Your task to perform on an android device: Show the shopping cart on bestbuy.com. Search for dell alienware on bestbuy.com, select the first entry, and add it to the cart. Image 0: 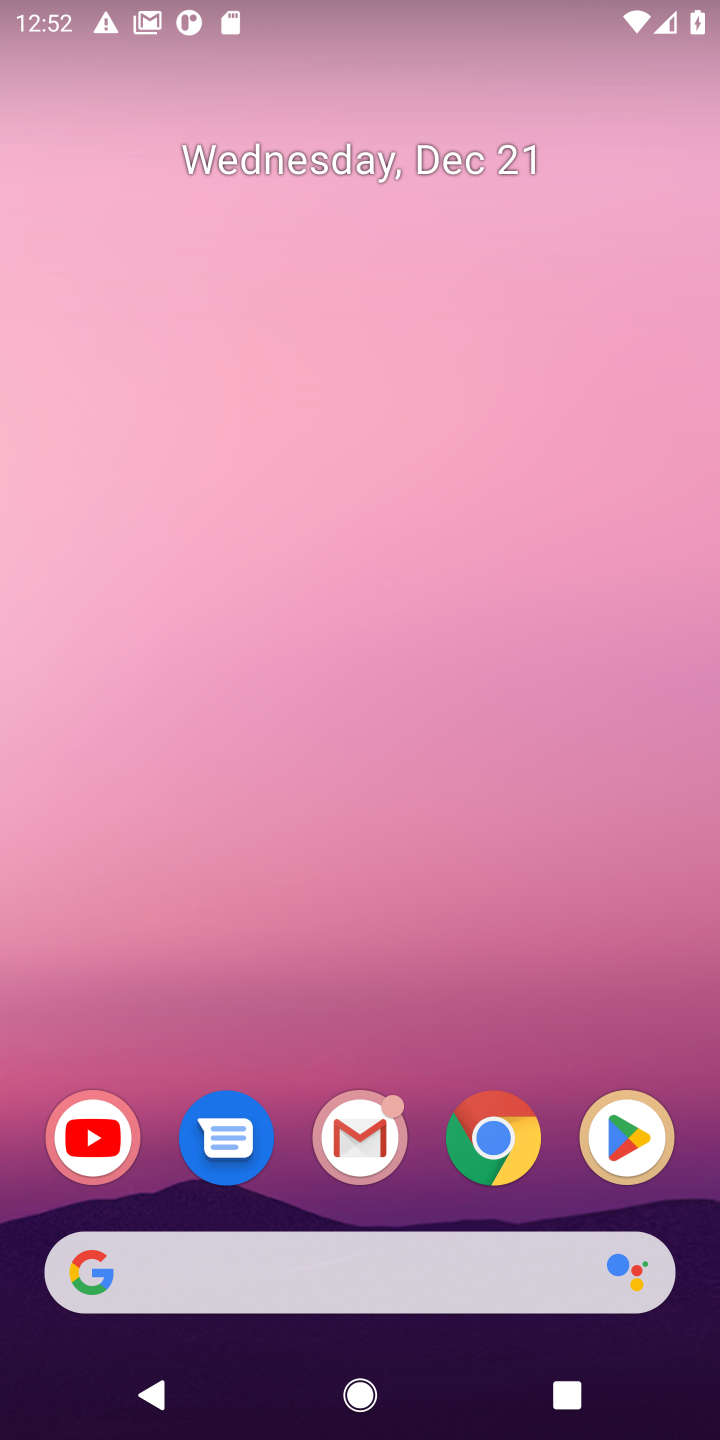
Step 0: click (496, 1122)
Your task to perform on an android device: Show the shopping cart on bestbuy.com. Search for dell alienware on bestbuy.com, select the first entry, and add it to the cart. Image 1: 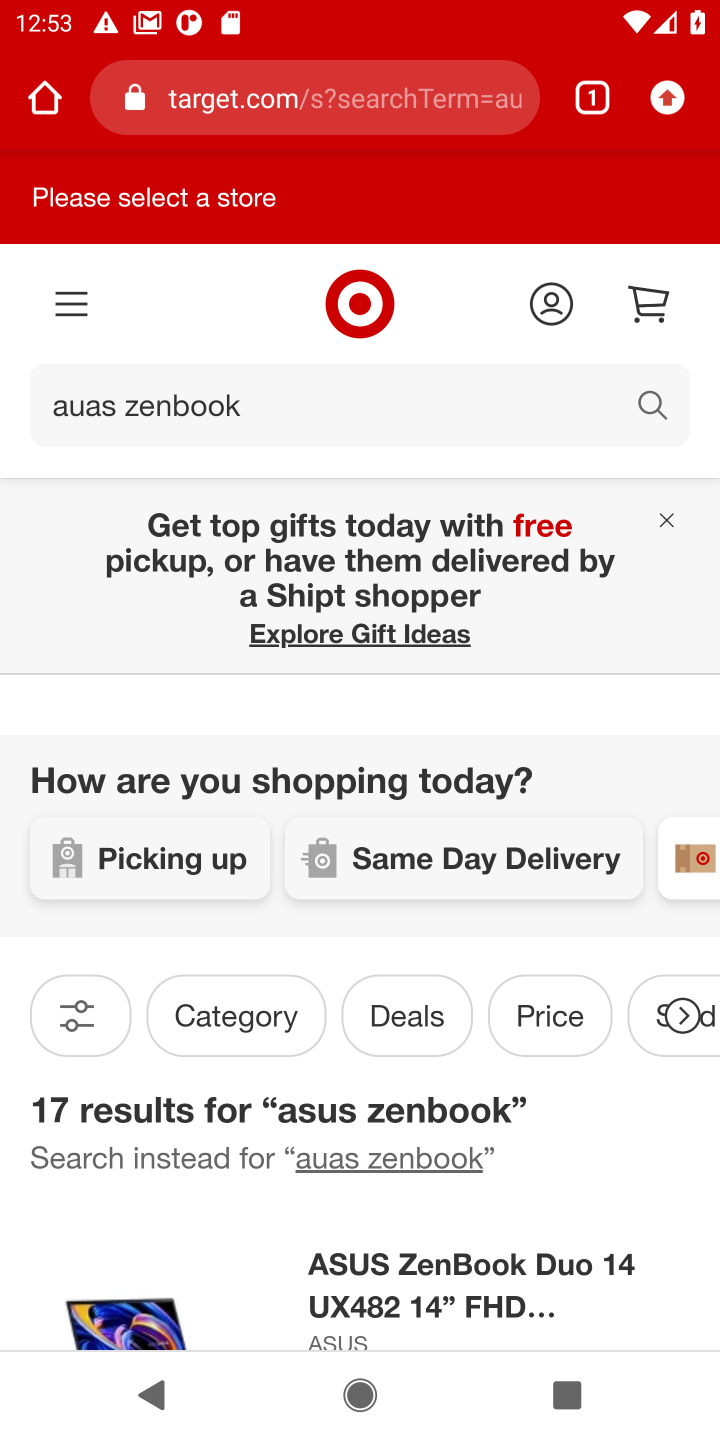
Step 1: click (349, 112)
Your task to perform on an android device: Show the shopping cart on bestbuy.com. Search for dell alienware on bestbuy.com, select the first entry, and add it to the cart. Image 2: 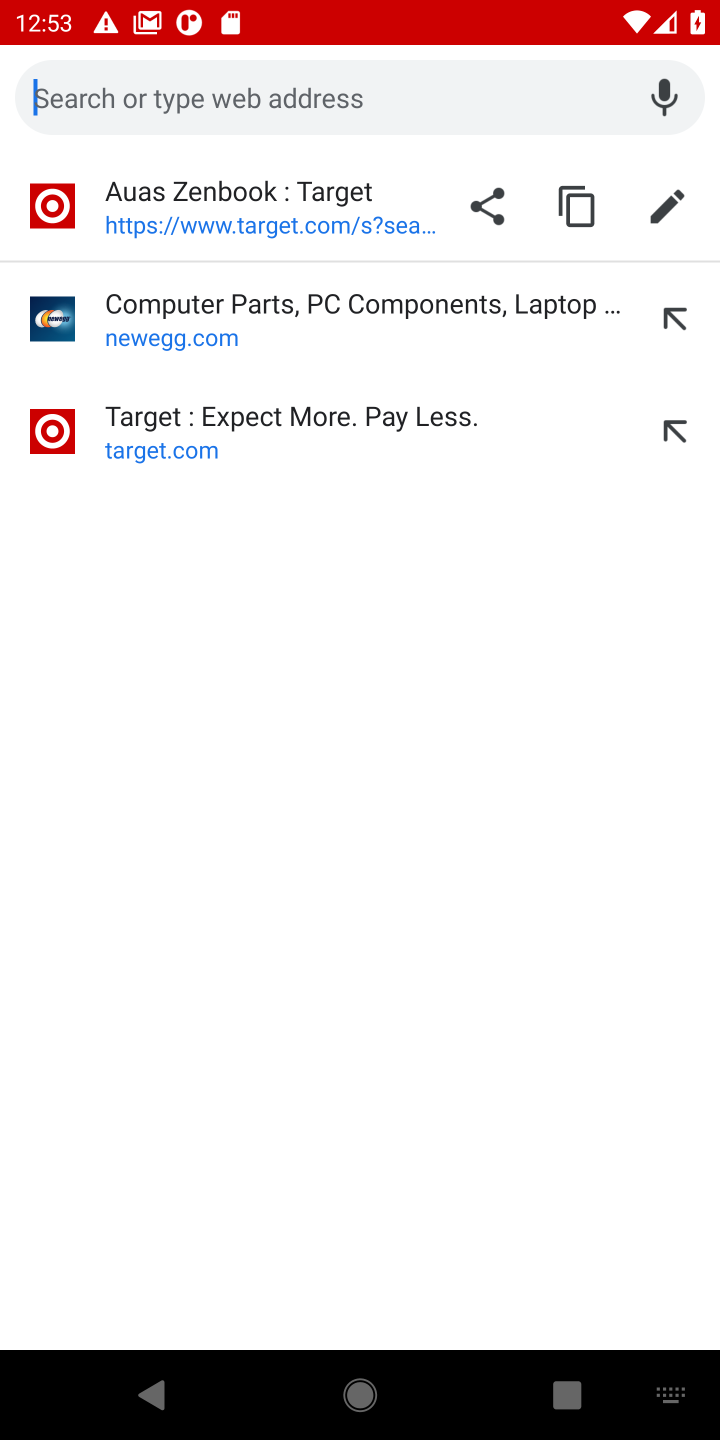
Step 2: type "bestbuy"
Your task to perform on an android device: Show the shopping cart on bestbuy.com. Search for dell alienware on bestbuy.com, select the first entry, and add it to the cart. Image 3: 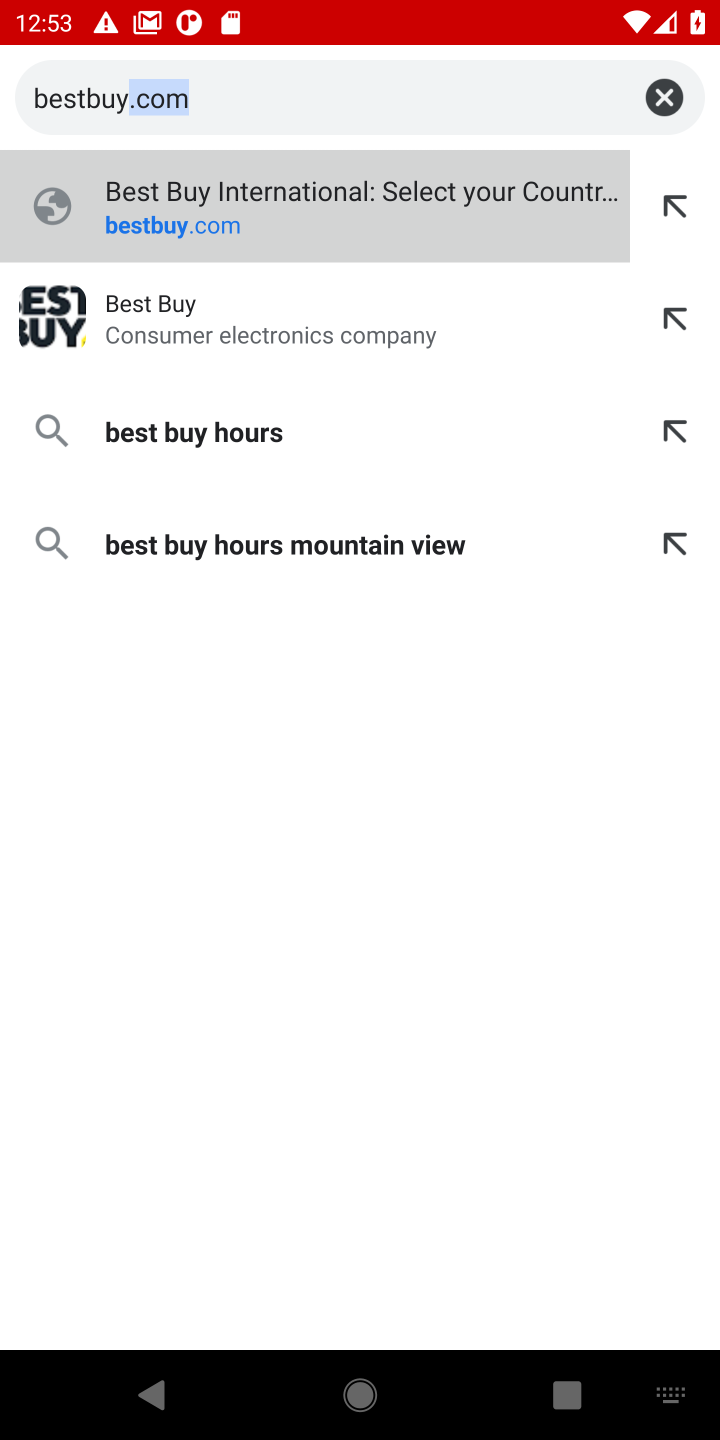
Step 3: click (174, 202)
Your task to perform on an android device: Show the shopping cart on bestbuy.com. Search for dell alienware on bestbuy.com, select the first entry, and add it to the cart. Image 4: 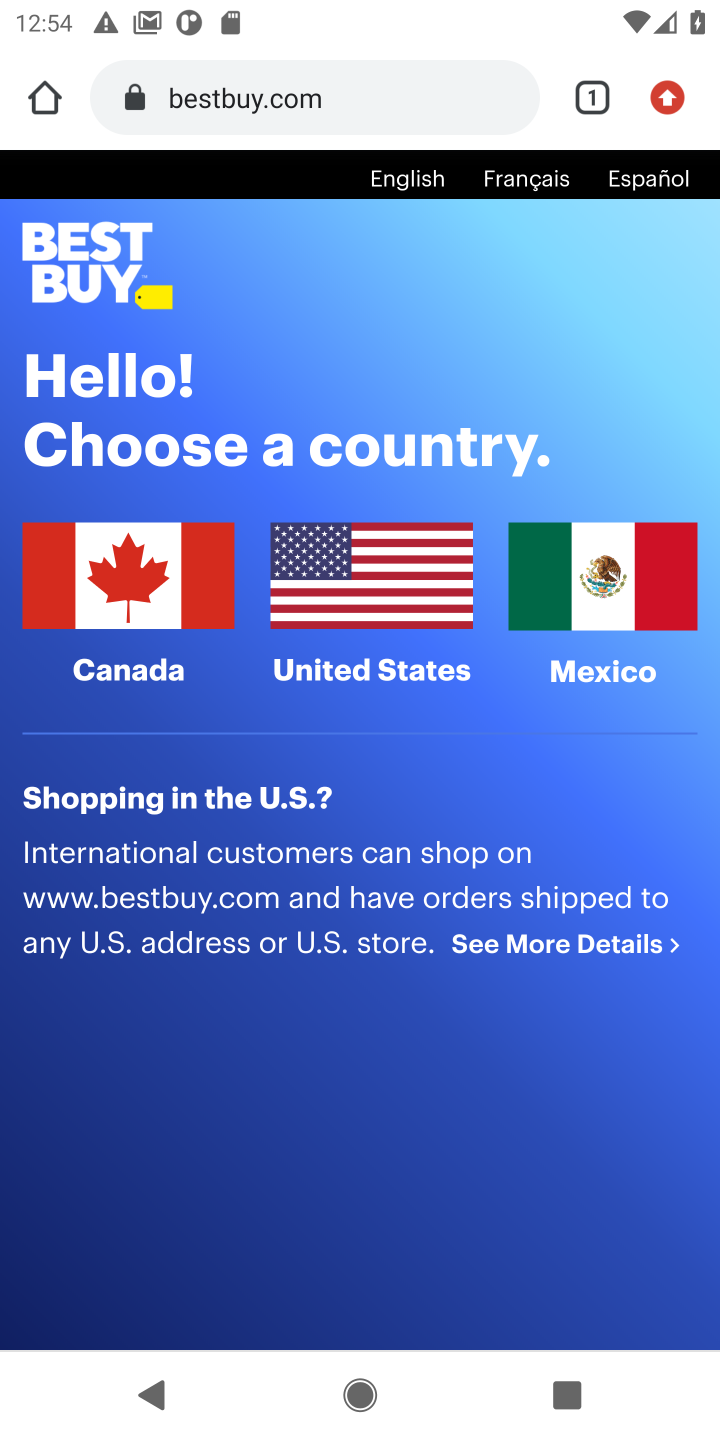
Step 4: click (159, 552)
Your task to perform on an android device: Show the shopping cart on bestbuy.com. Search for dell alienware on bestbuy.com, select the first entry, and add it to the cart. Image 5: 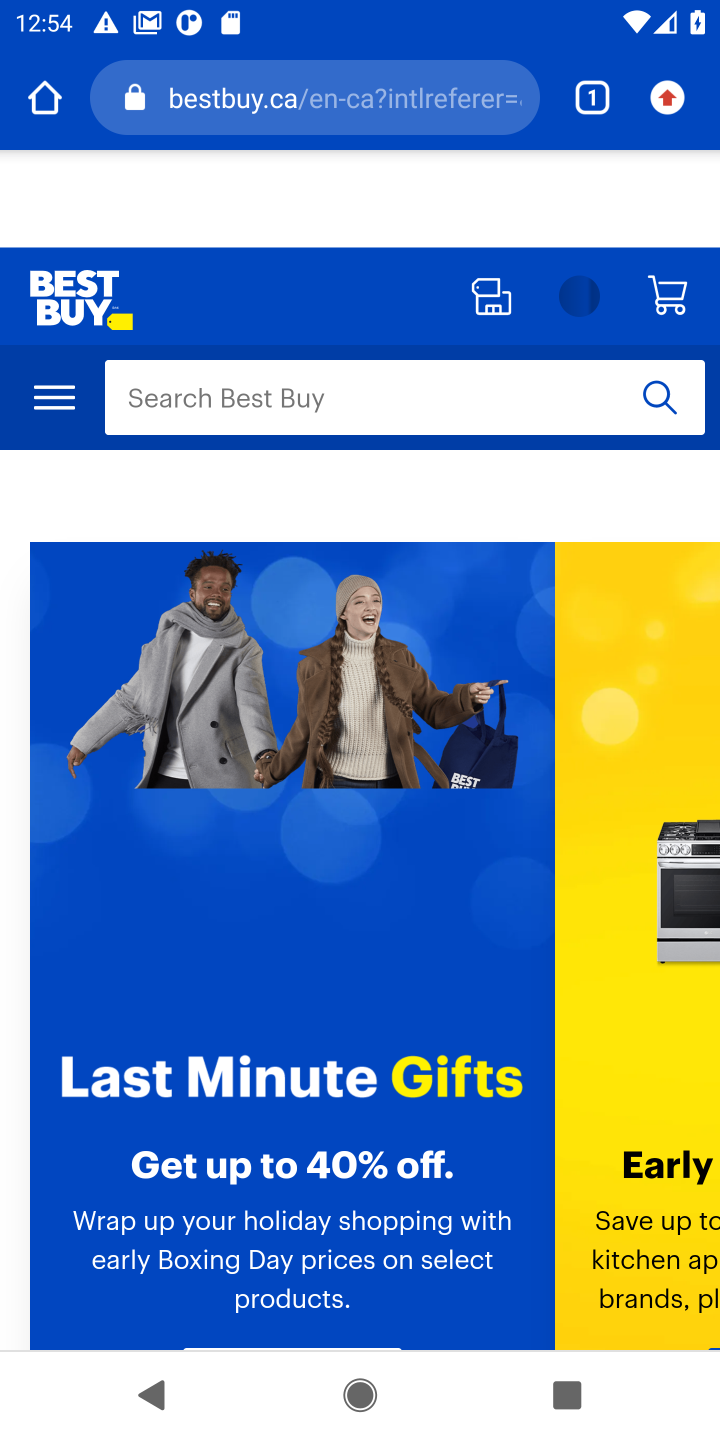
Step 5: click (327, 416)
Your task to perform on an android device: Show the shopping cart on bestbuy.com. Search for dell alienware on bestbuy.com, select the first entry, and add it to the cart. Image 6: 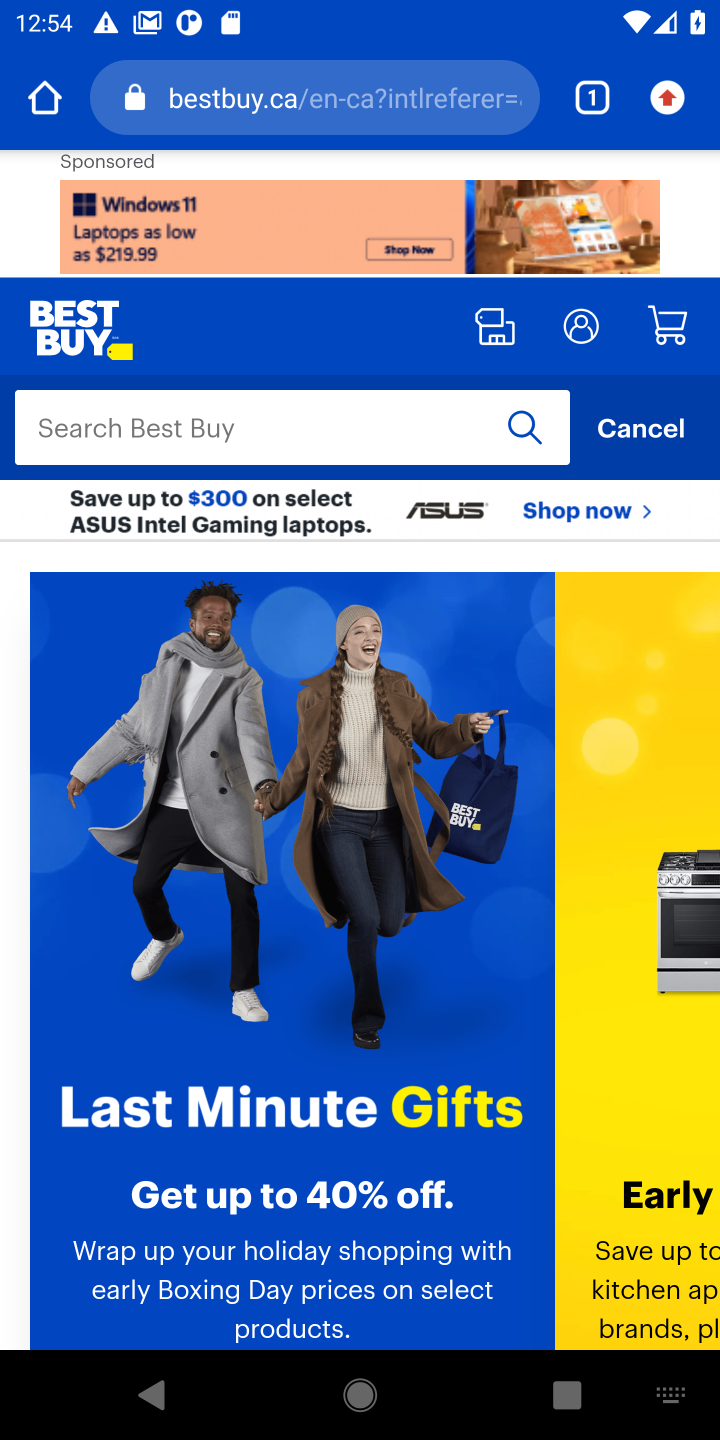
Step 6: type "dell alienware "
Your task to perform on an android device: Show the shopping cart on bestbuy.com. Search for dell alienware on bestbuy.com, select the first entry, and add it to the cart. Image 7: 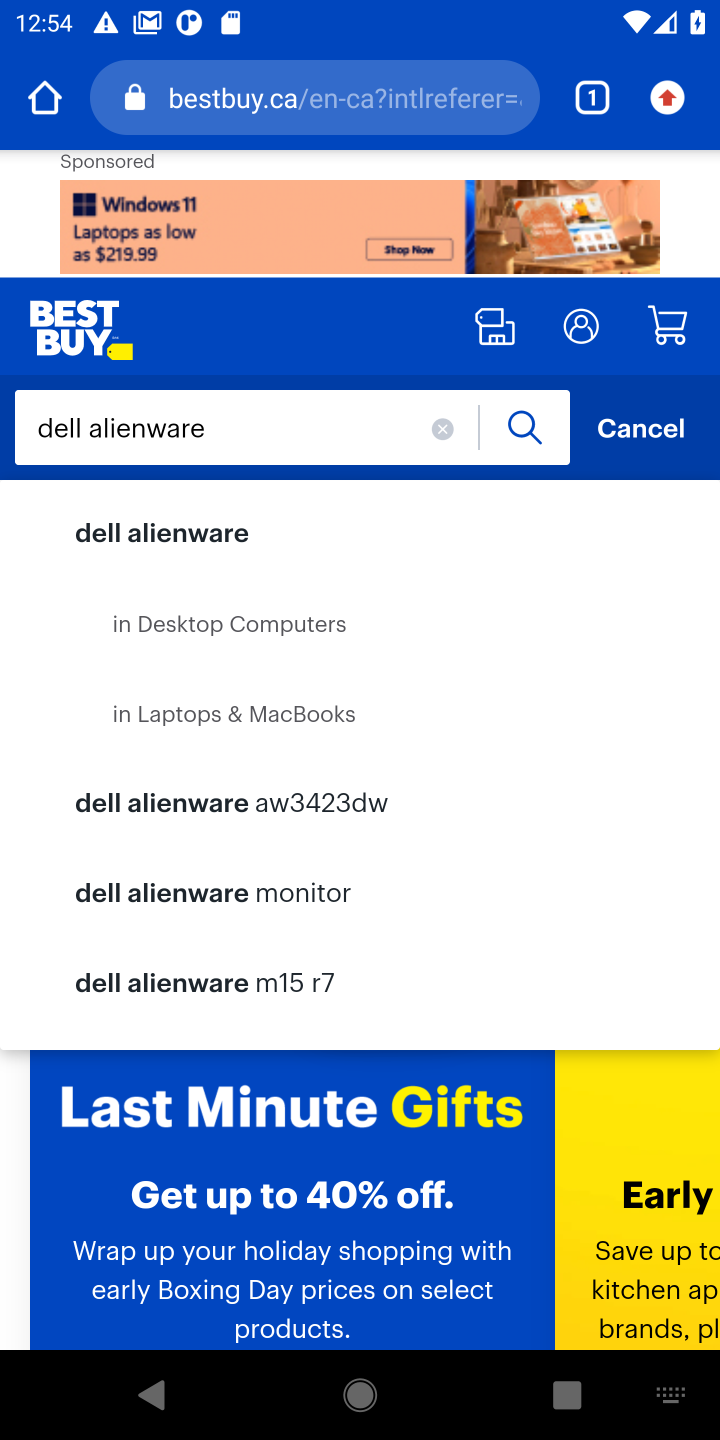
Step 7: click (237, 522)
Your task to perform on an android device: Show the shopping cart on bestbuy.com. Search for dell alienware on bestbuy.com, select the first entry, and add it to the cart. Image 8: 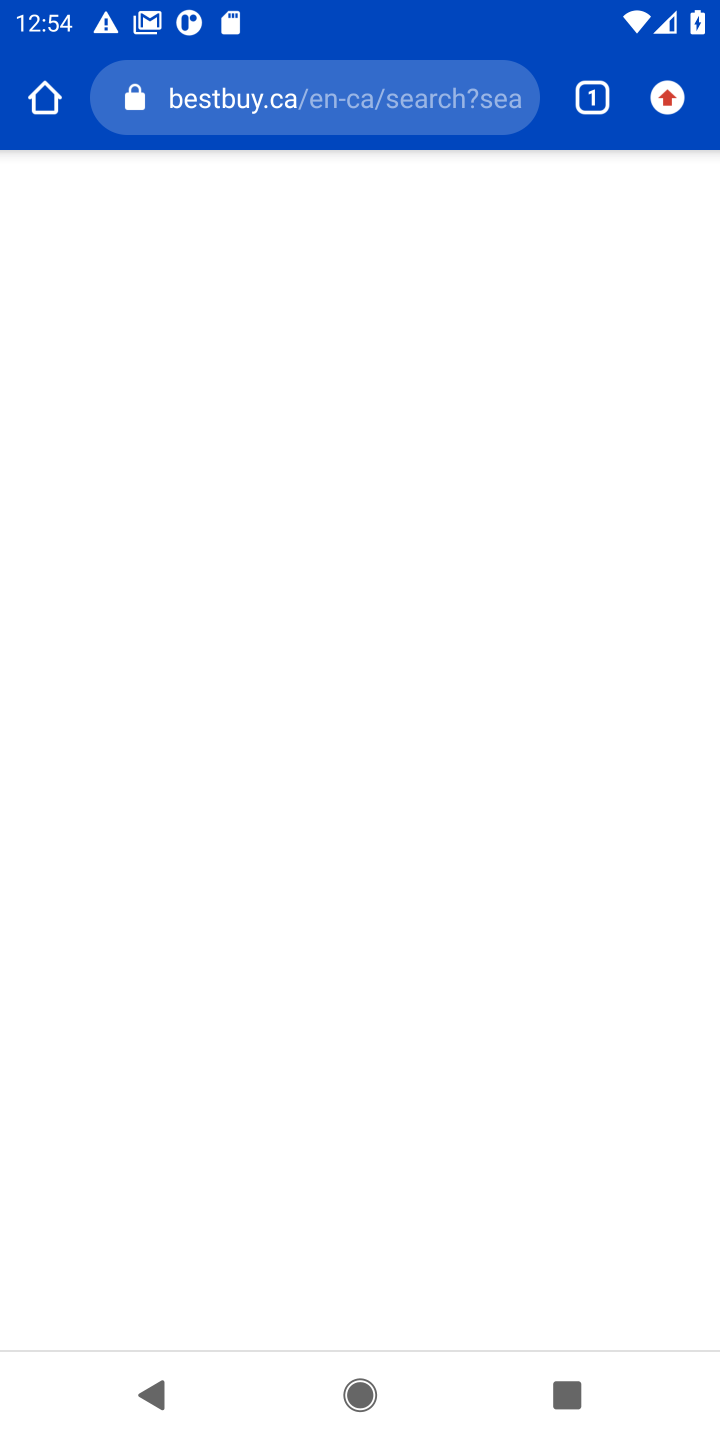
Step 8: click (509, 432)
Your task to perform on an android device: Show the shopping cart on bestbuy.com. Search for dell alienware on bestbuy.com, select the first entry, and add it to the cart. Image 9: 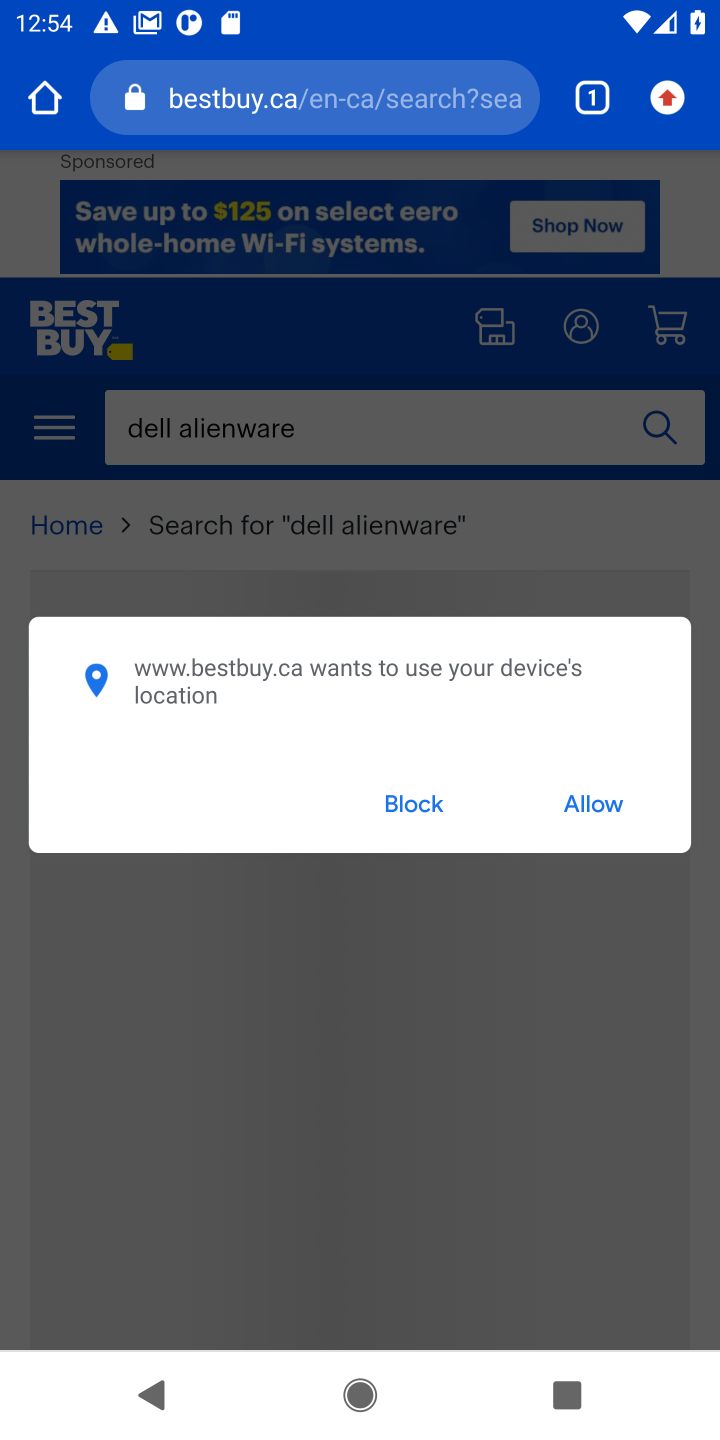
Step 9: click (605, 812)
Your task to perform on an android device: Show the shopping cart on bestbuy.com. Search for dell alienware on bestbuy.com, select the first entry, and add it to the cart. Image 10: 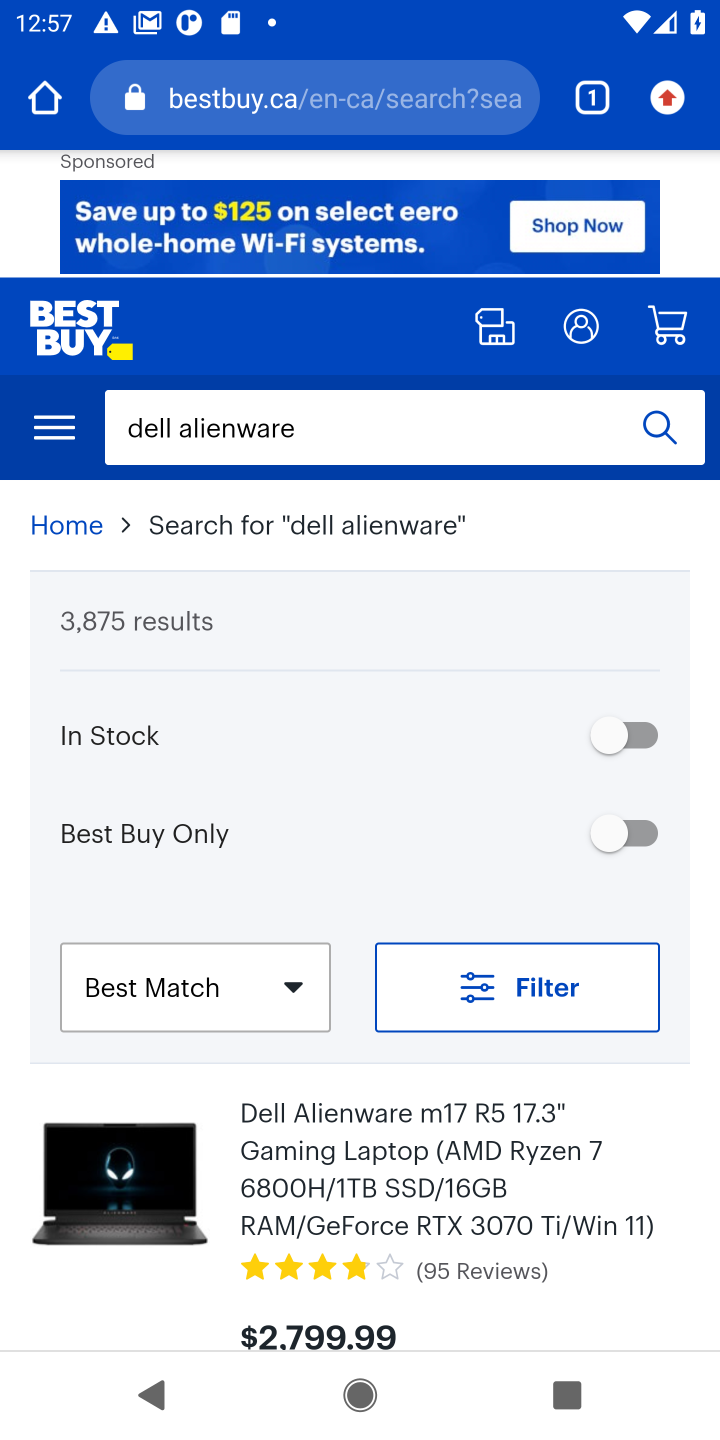
Step 10: click (311, 1124)
Your task to perform on an android device: Show the shopping cart on bestbuy.com. Search for dell alienware on bestbuy.com, select the first entry, and add it to the cart. Image 11: 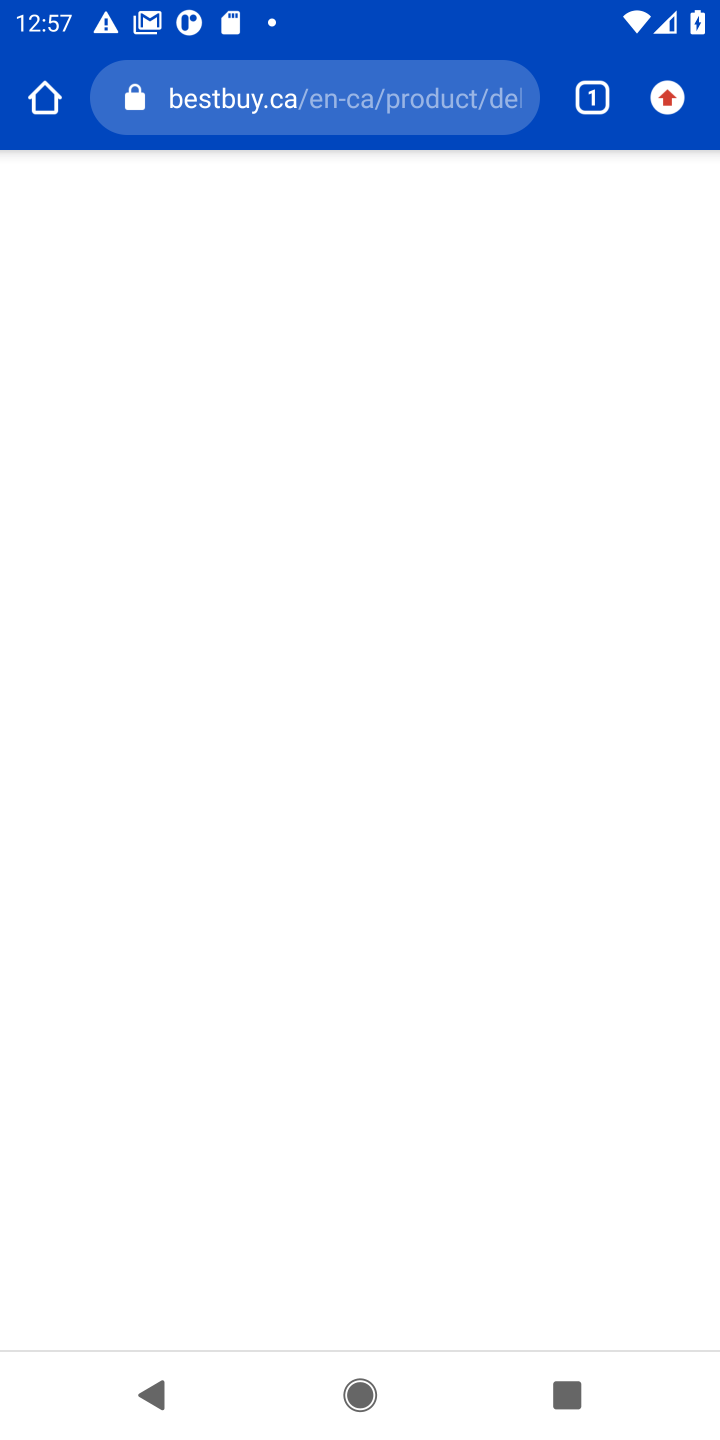
Step 11: task complete